Your task to perform on an android device: change notifications settings Image 0: 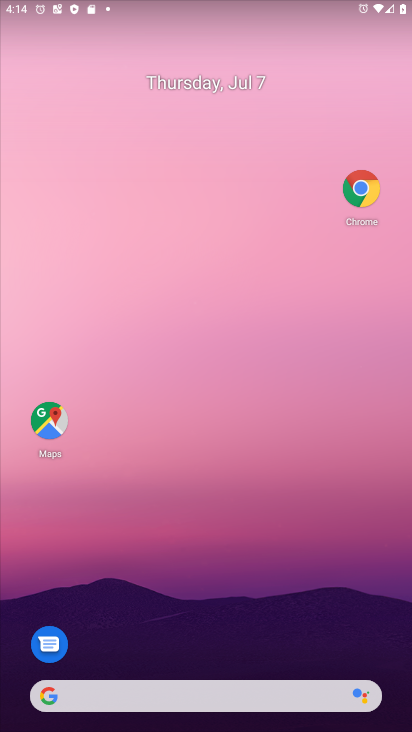
Step 0: drag from (378, 630) to (382, 414)
Your task to perform on an android device: change notifications settings Image 1: 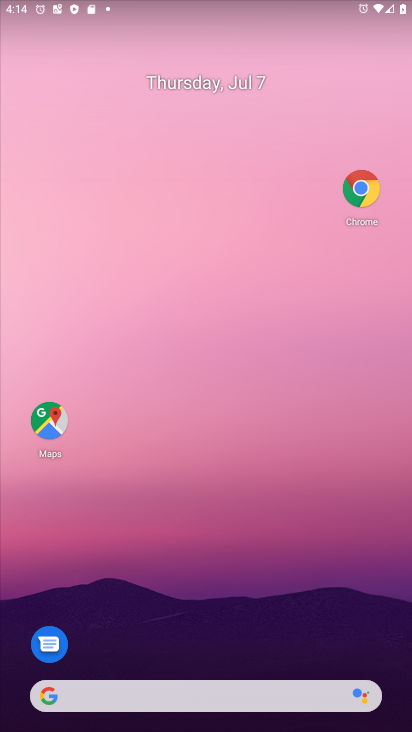
Step 1: drag from (338, 524) to (383, 6)
Your task to perform on an android device: change notifications settings Image 2: 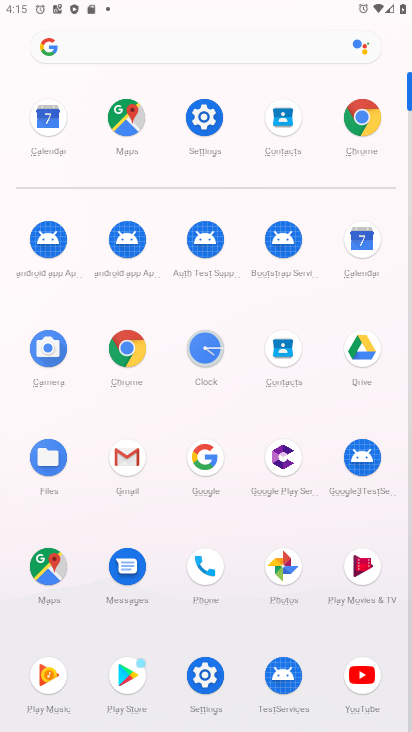
Step 2: click (212, 672)
Your task to perform on an android device: change notifications settings Image 3: 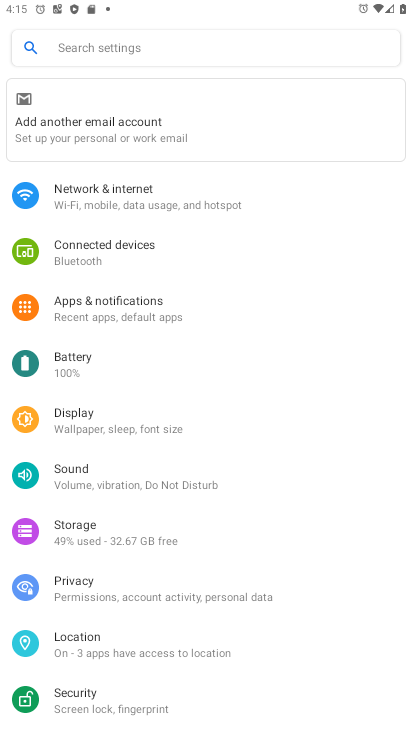
Step 3: click (41, 306)
Your task to perform on an android device: change notifications settings Image 4: 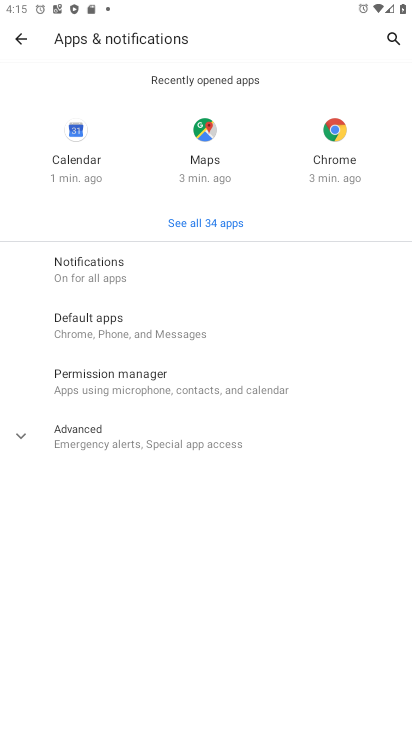
Step 4: click (179, 268)
Your task to perform on an android device: change notifications settings Image 5: 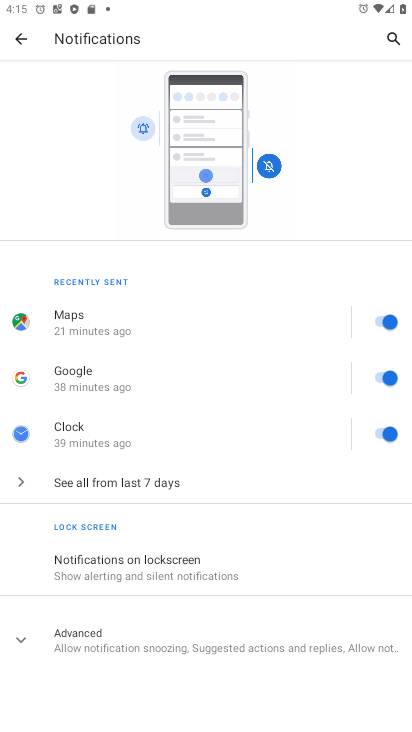
Step 5: click (144, 584)
Your task to perform on an android device: change notifications settings Image 6: 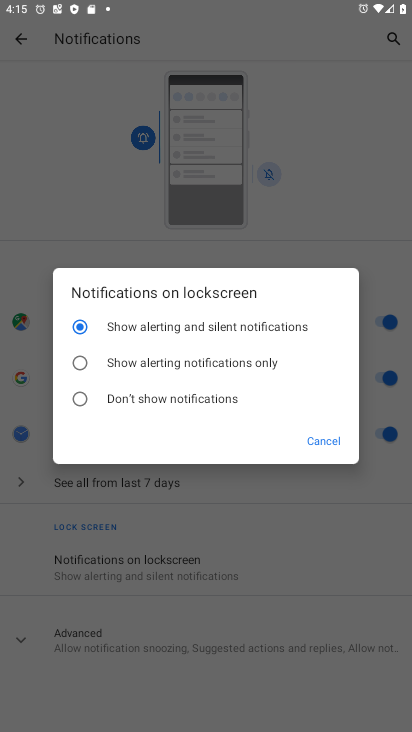
Step 6: click (213, 519)
Your task to perform on an android device: change notifications settings Image 7: 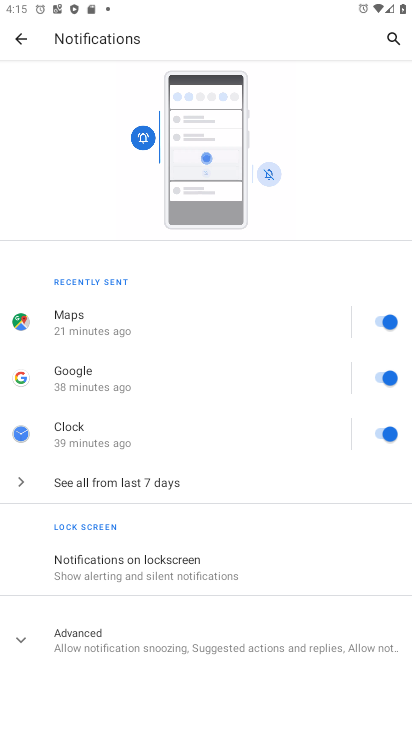
Step 7: click (236, 662)
Your task to perform on an android device: change notifications settings Image 8: 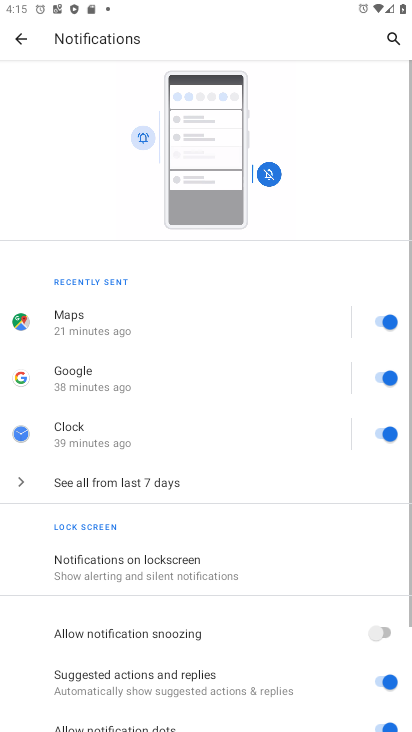
Step 8: drag from (236, 662) to (235, 345)
Your task to perform on an android device: change notifications settings Image 9: 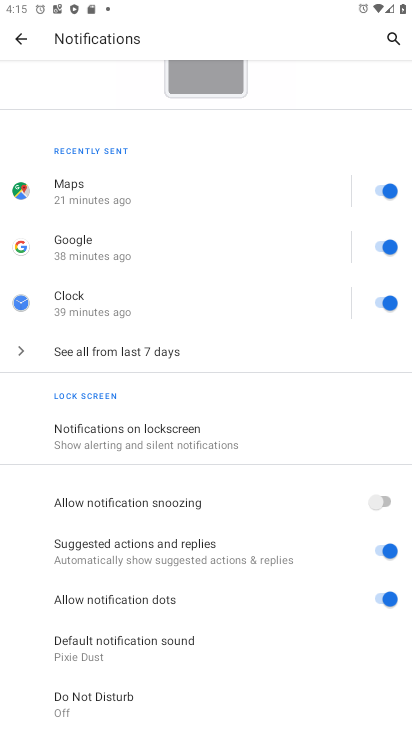
Step 9: click (172, 548)
Your task to perform on an android device: change notifications settings Image 10: 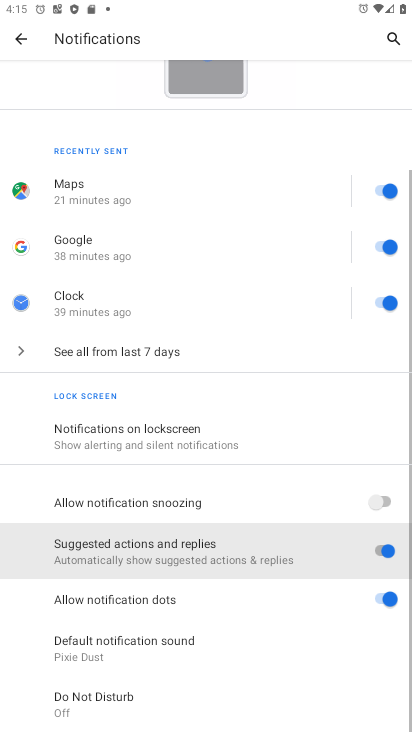
Step 10: click (214, 600)
Your task to perform on an android device: change notifications settings Image 11: 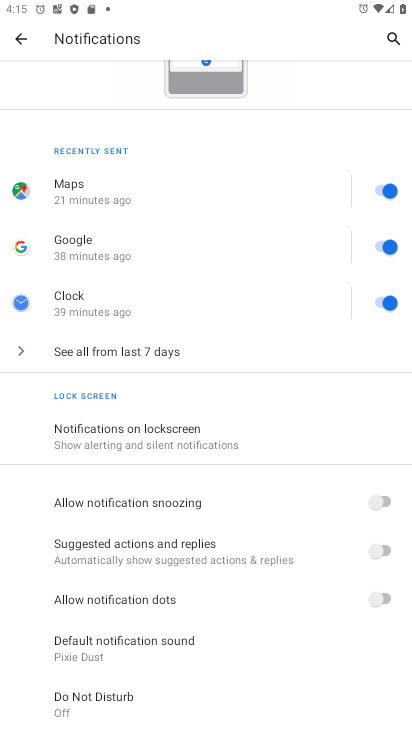
Step 11: task complete